Your task to perform on an android device: Open display settings Image 0: 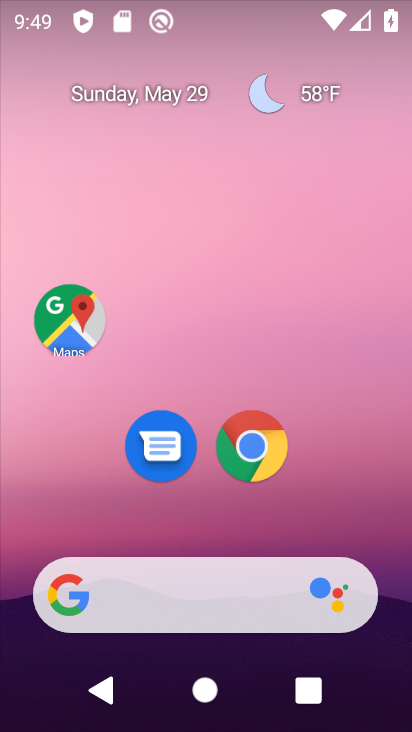
Step 0: drag from (203, 514) to (203, 114)
Your task to perform on an android device: Open display settings Image 1: 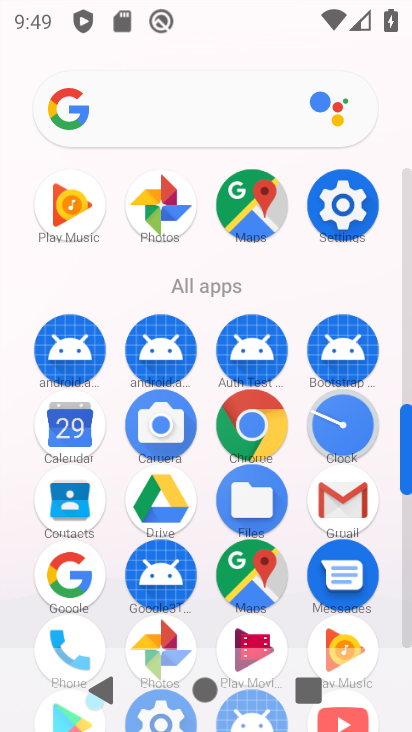
Step 1: click (335, 210)
Your task to perform on an android device: Open display settings Image 2: 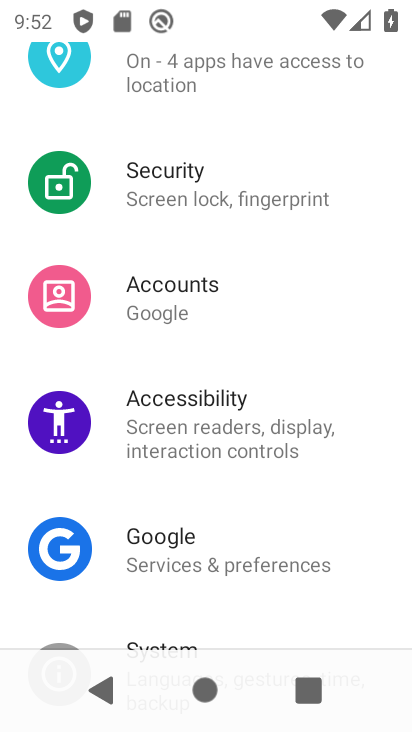
Step 2: drag from (234, 600) to (237, 64)
Your task to perform on an android device: Open display settings Image 3: 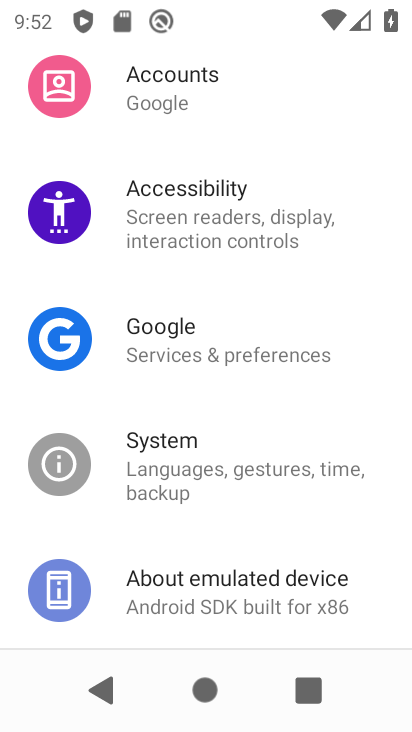
Step 3: drag from (267, 107) to (332, 601)
Your task to perform on an android device: Open display settings Image 4: 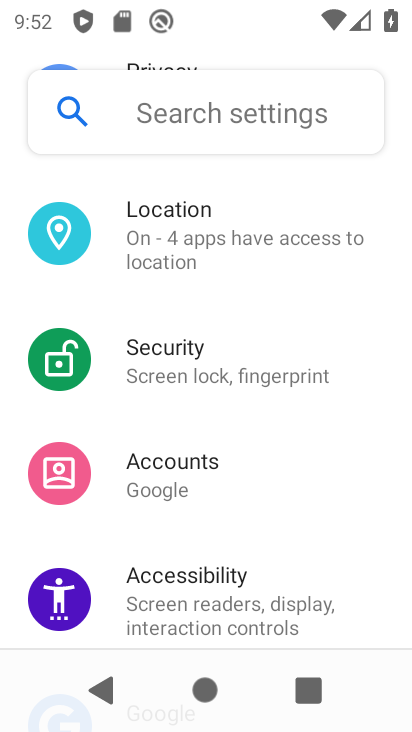
Step 4: drag from (271, 203) to (286, 596)
Your task to perform on an android device: Open display settings Image 5: 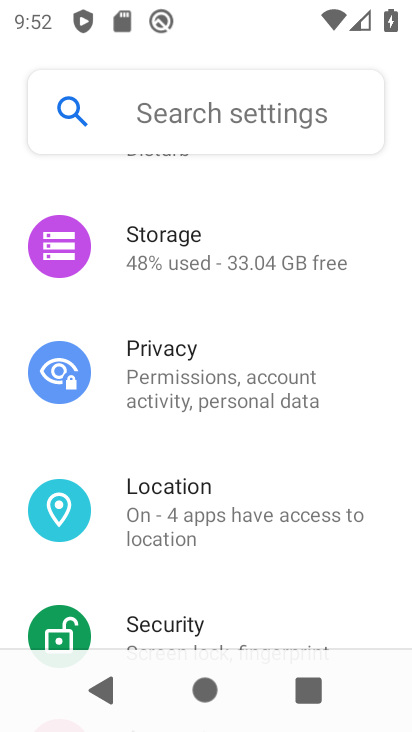
Step 5: drag from (276, 525) to (281, 584)
Your task to perform on an android device: Open display settings Image 6: 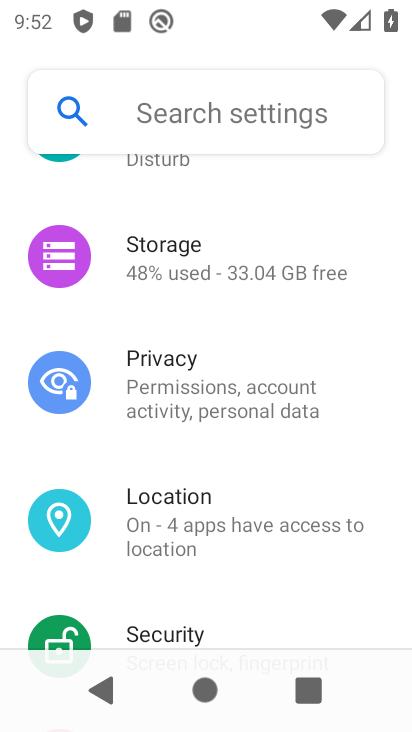
Step 6: drag from (207, 183) to (249, 584)
Your task to perform on an android device: Open display settings Image 7: 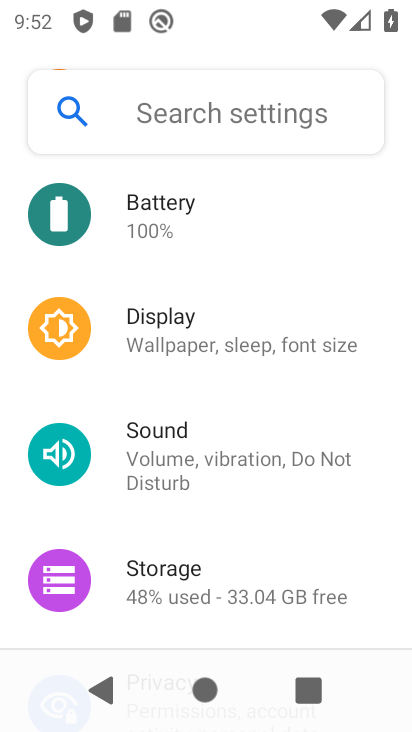
Step 7: click (181, 313)
Your task to perform on an android device: Open display settings Image 8: 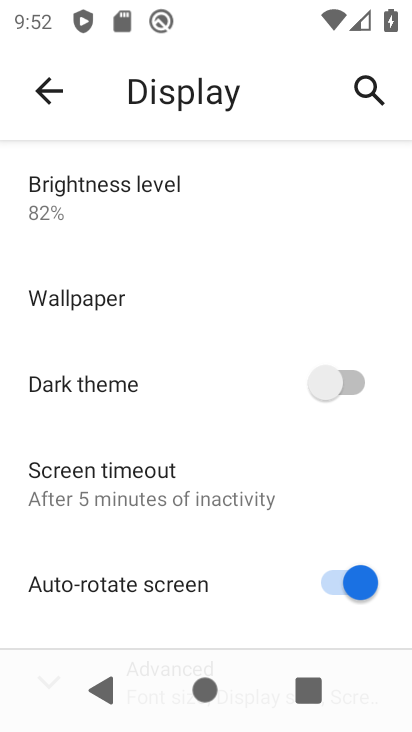
Step 8: task complete